Your task to perform on an android device: toggle data saver in the chrome app Image 0: 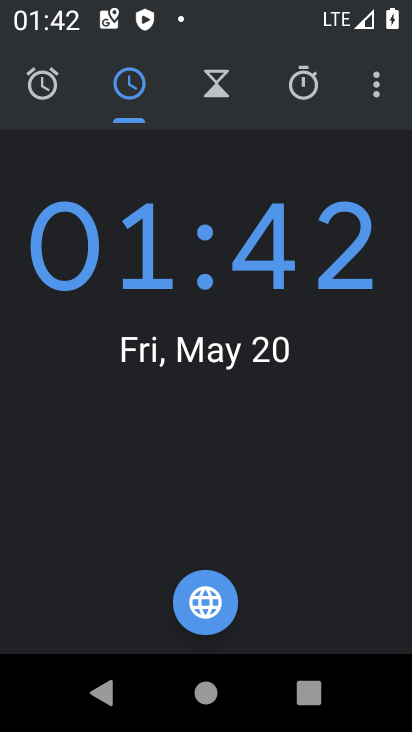
Step 0: press home button
Your task to perform on an android device: toggle data saver in the chrome app Image 1: 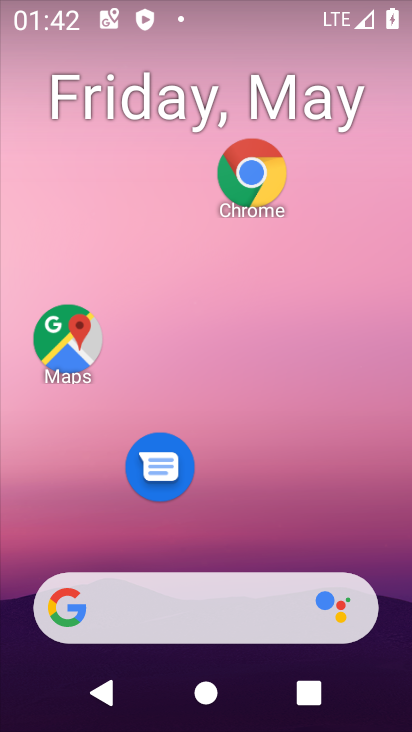
Step 1: drag from (250, 654) to (375, 225)
Your task to perform on an android device: toggle data saver in the chrome app Image 2: 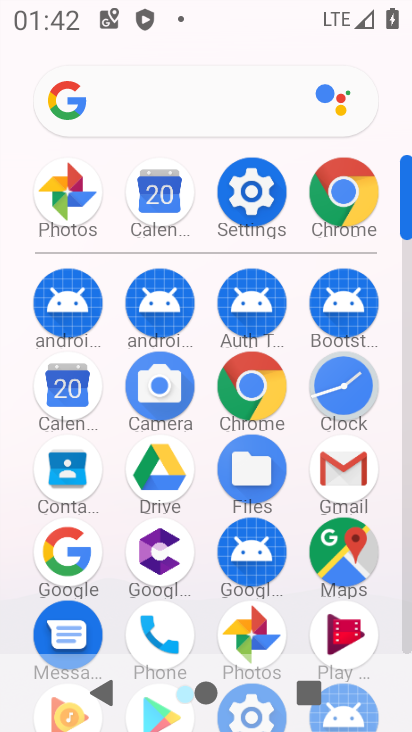
Step 2: click (328, 208)
Your task to perform on an android device: toggle data saver in the chrome app Image 3: 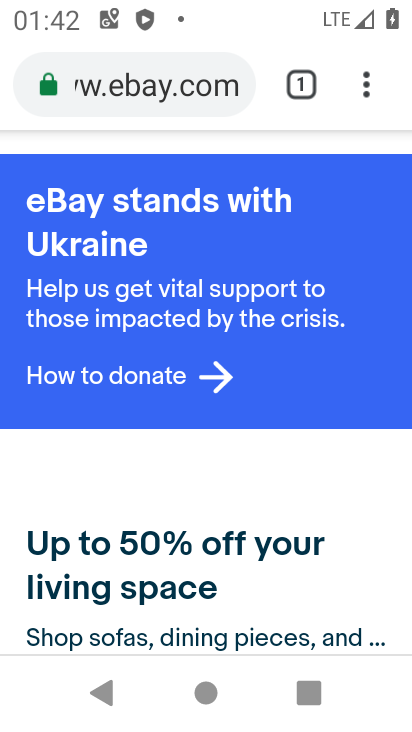
Step 3: click (366, 98)
Your task to perform on an android device: toggle data saver in the chrome app Image 4: 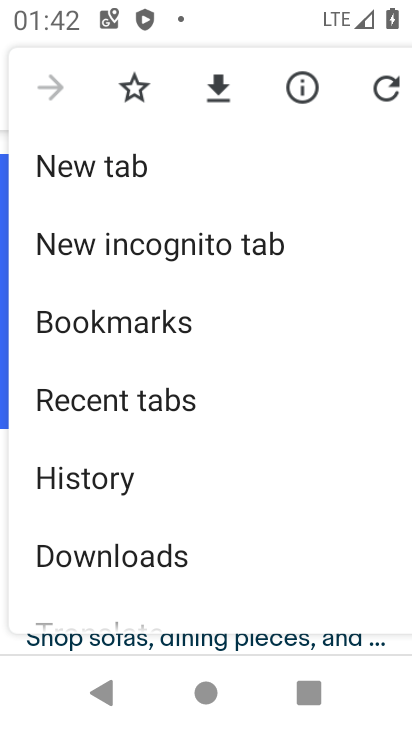
Step 4: drag from (182, 484) to (246, 273)
Your task to perform on an android device: toggle data saver in the chrome app Image 5: 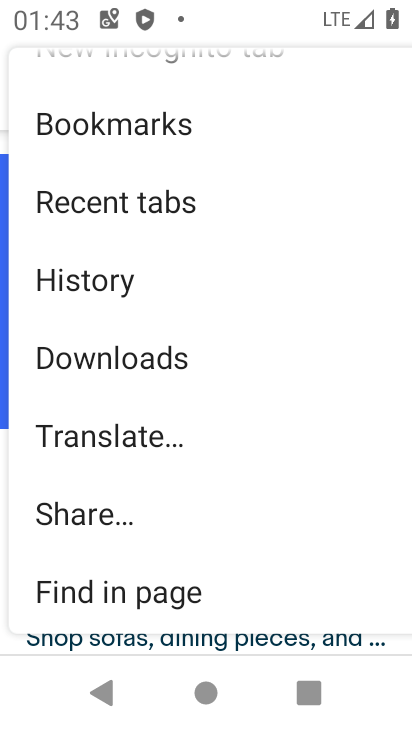
Step 5: drag from (168, 518) to (199, 370)
Your task to perform on an android device: toggle data saver in the chrome app Image 6: 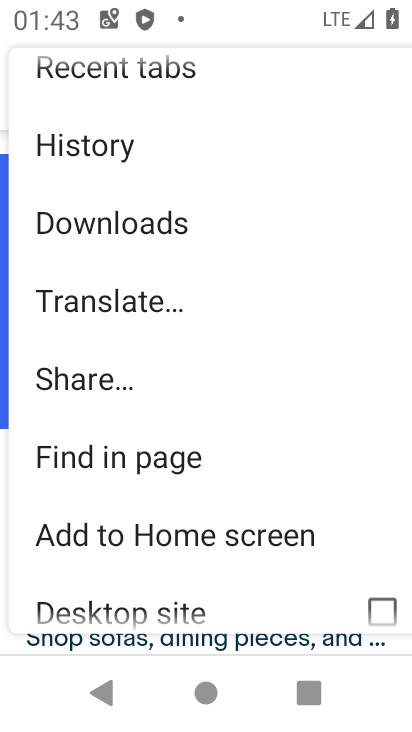
Step 6: drag from (122, 545) to (168, 377)
Your task to perform on an android device: toggle data saver in the chrome app Image 7: 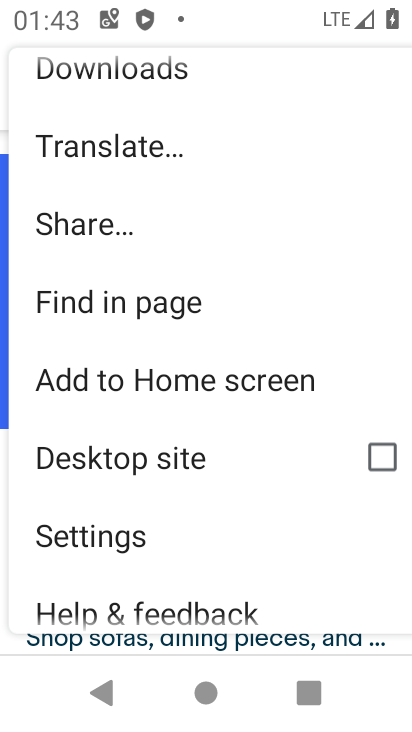
Step 7: click (129, 532)
Your task to perform on an android device: toggle data saver in the chrome app Image 8: 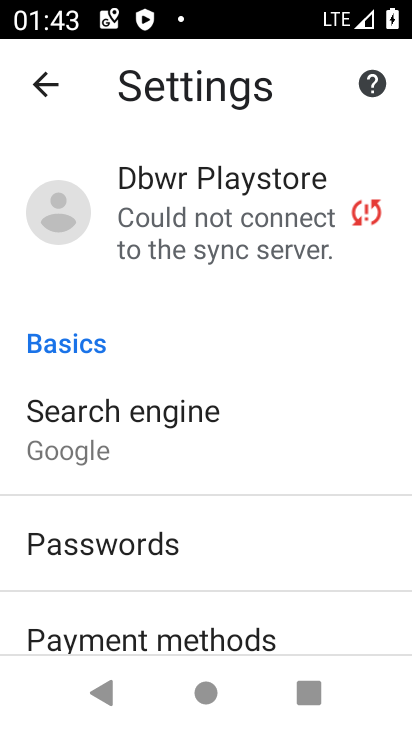
Step 8: drag from (182, 607) to (216, 362)
Your task to perform on an android device: toggle data saver in the chrome app Image 9: 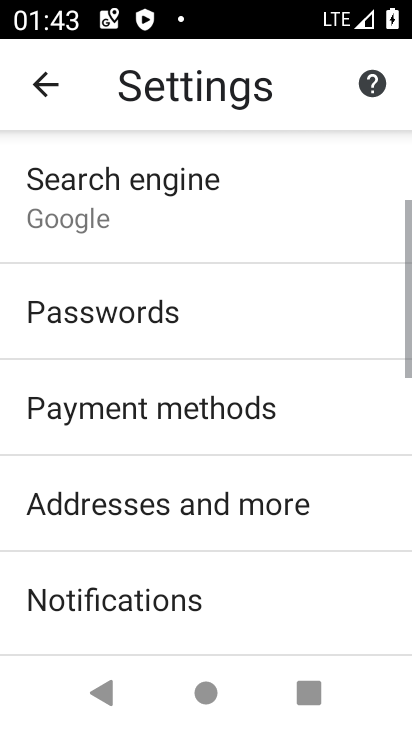
Step 9: drag from (191, 563) to (230, 253)
Your task to perform on an android device: toggle data saver in the chrome app Image 10: 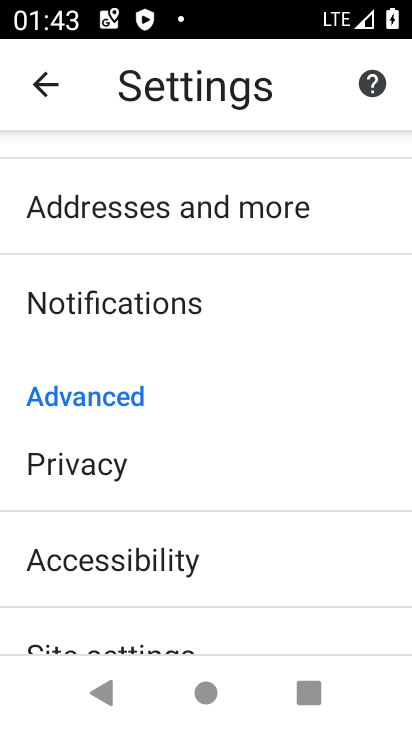
Step 10: drag from (178, 564) to (235, 372)
Your task to perform on an android device: toggle data saver in the chrome app Image 11: 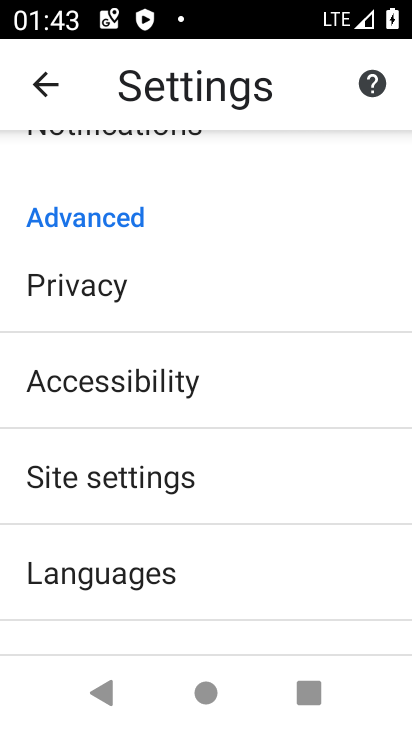
Step 11: drag from (207, 585) to (216, 463)
Your task to perform on an android device: toggle data saver in the chrome app Image 12: 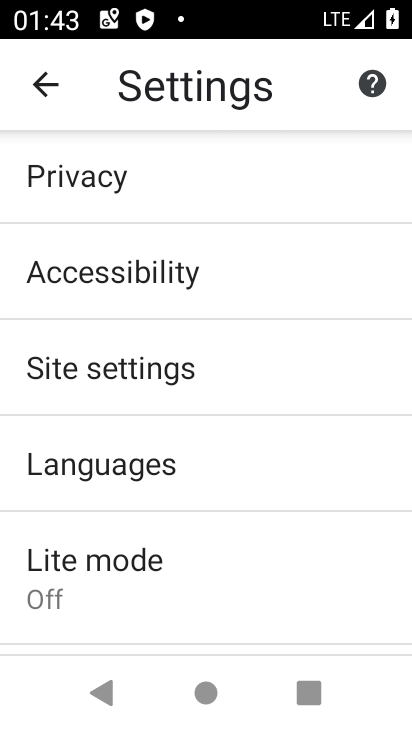
Step 12: click (115, 578)
Your task to perform on an android device: toggle data saver in the chrome app Image 13: 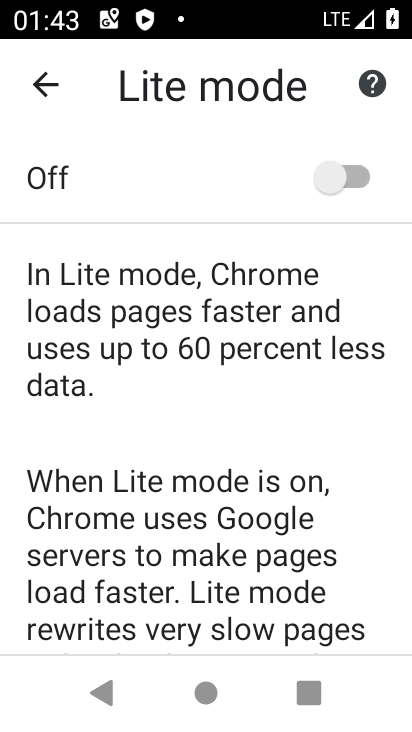
Step 13: task complete